Your task to perform on an android device: Open Amazon Image 0: 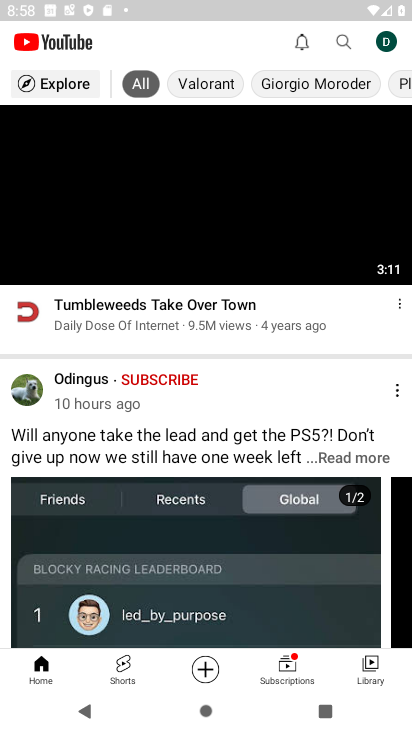
Step 0: press home button
Your task to perform on an android device: Open Amazon Image 1: 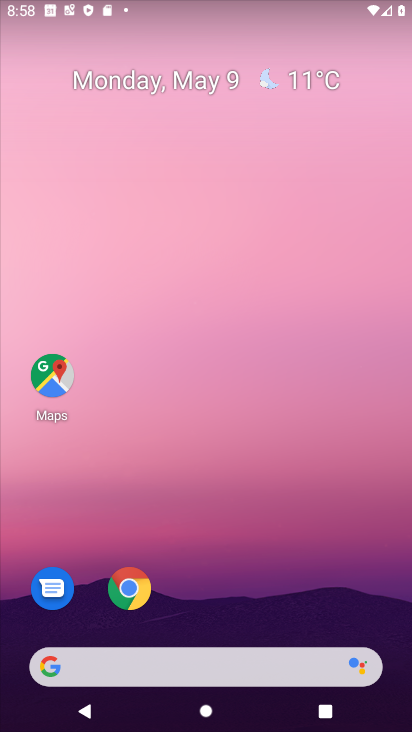
Step 1: drag from (200, 667) to (316, 69)
Your task to perform on an android device: Open Amazon Image 2: 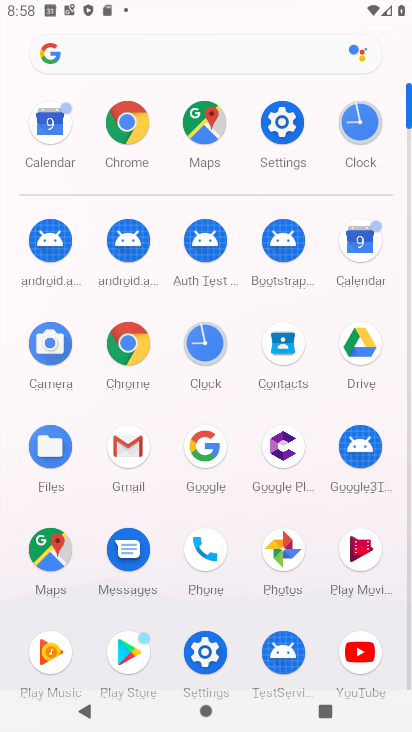
Step 2: click (126, 134)
Your task to perform on an android device: Open Amazon Image 3: 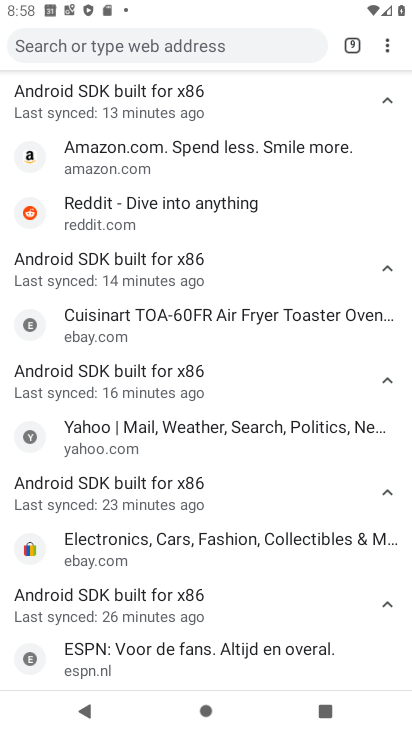
Step 3: drag from (385, 48) to (254, 99)
Your task to perform on an android device: Open Amazon Image 4: 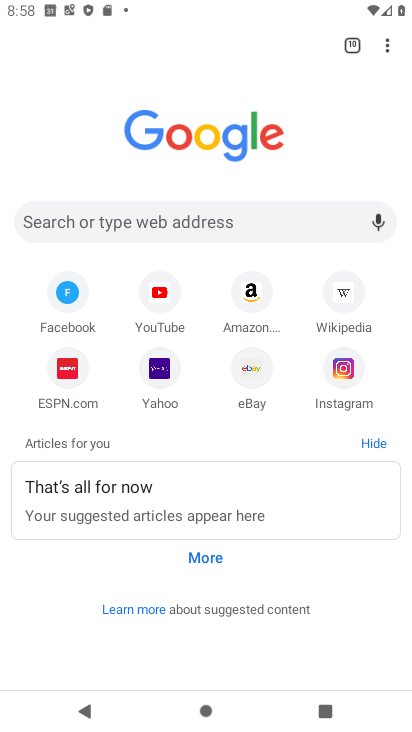
Step 4: click (255, 301)
Your task to perform on an android device: Open Amazon Image 5: 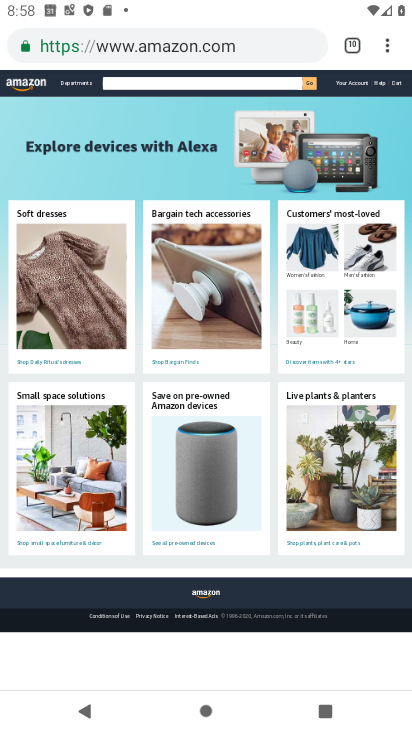
Step 5: task complete